Your task to perform on an android device: add a contact in the contacts app Image 0: 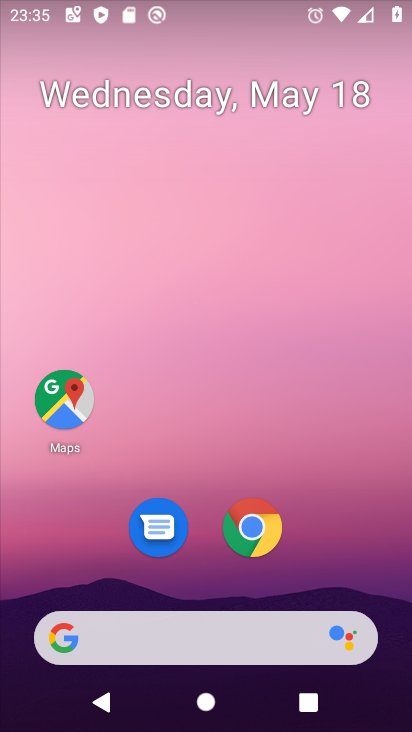
Step 0: drag from (340, 571) to (320, 236)
Your task to perform on an android device: add a contact in the contacts app Image 1: 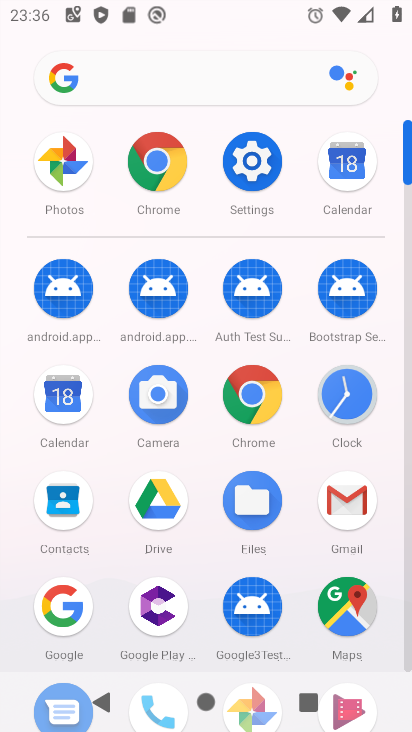
Step 1: task complete